Your task to perform on an android device: turn off notifications in google photos Image 0: 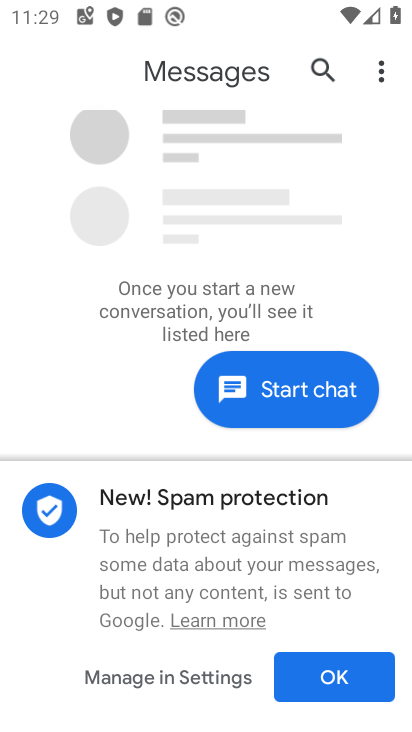
Step 0: press home button
Your task to perform on an android device: turn off notifications in google photos Image 1: 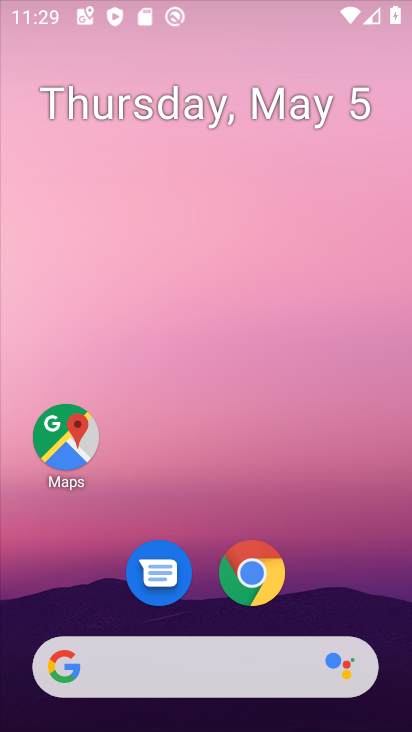
Step 1: drag from (261, 608) to (274, 289)
Your task to perform on an android device: turn off notifications in google photos Image 2: 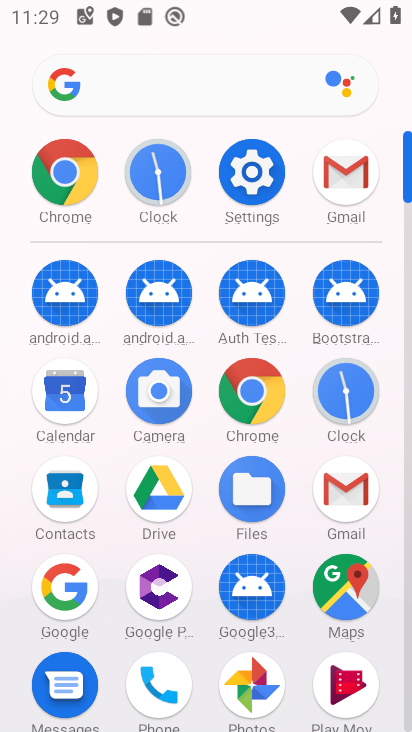
Step 2: click (253, 679)
Your task to perform on an android device: turn off notifications in google photos Image 3: 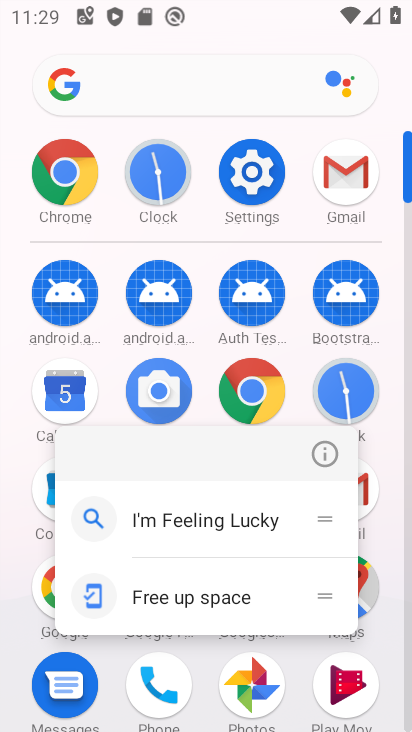
Step 3: click (261, 691)
Your task to perform on an android device: turn off notifications in google photos Image 4: 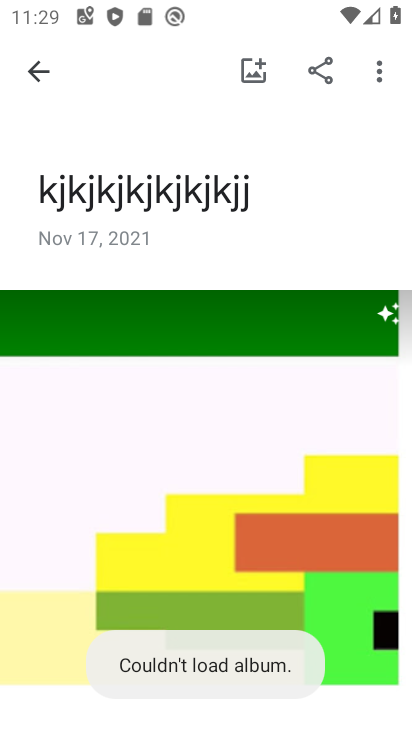
Step 4: click (42, 84)
Your task to perform on an android device: turn off notifications in google photos Image 5: 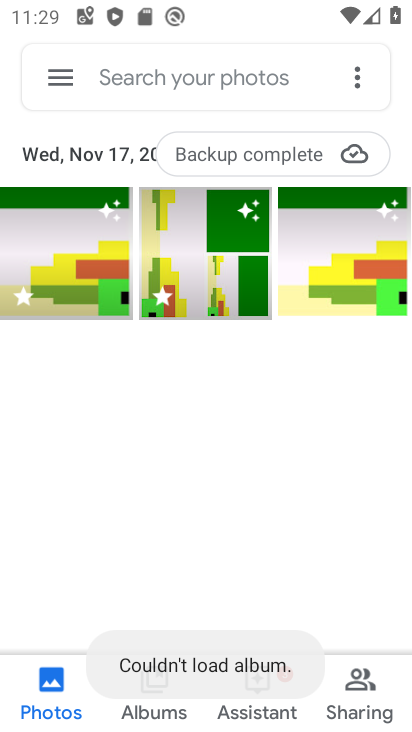
Step 5: click (67, 89)
Your task to perform on an android device: turn off notifications in google photos Image 6: 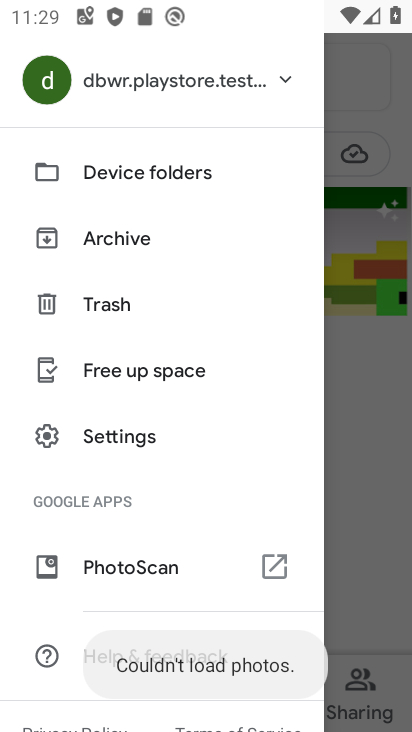
Step 6: click (154, 435)
Your task to perform on an android device: turn off notifications in google photos Image 7: 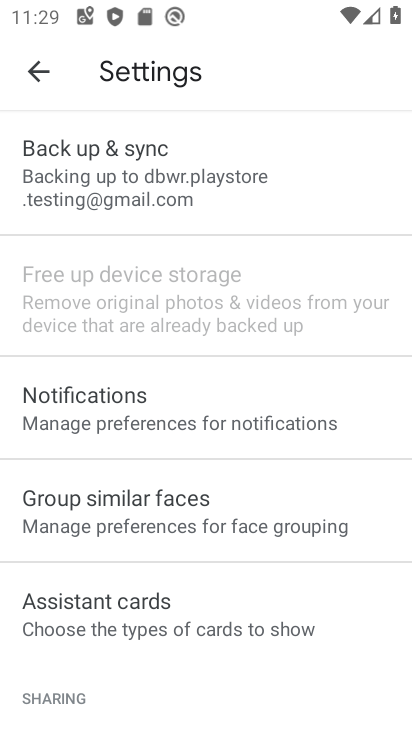
Step 7: click (154, 439)
Your task to perform on an android device: turn off notifications in google photos Image 8: 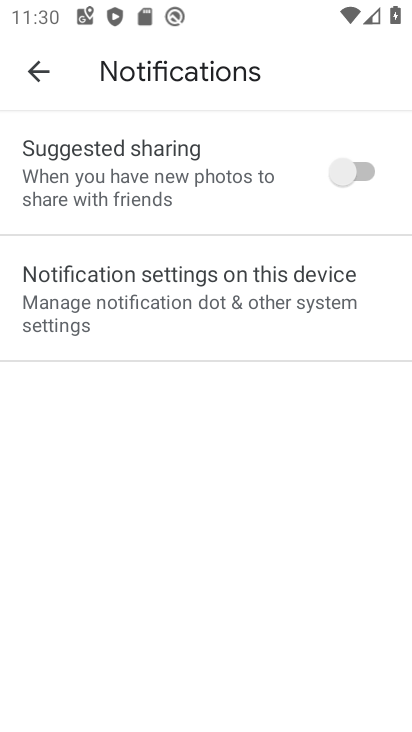
Step 8: click (157, 315)
Your task to perform on an android device: turn off notifications in google photos Image 9: 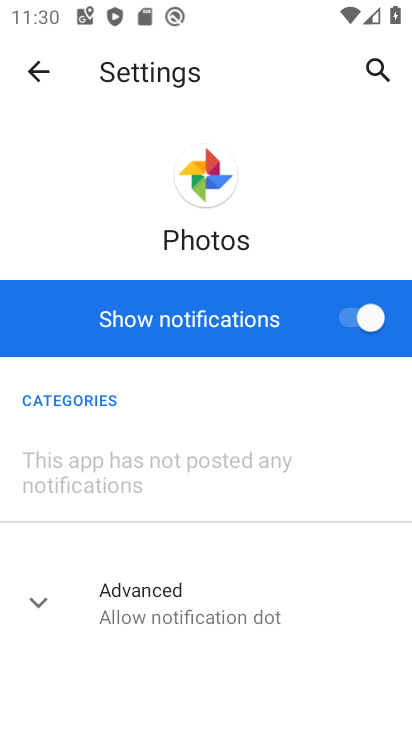
Step 9: click (351, 320)
Your task to perform on an android device: turn off notifications in google photos Image 10: 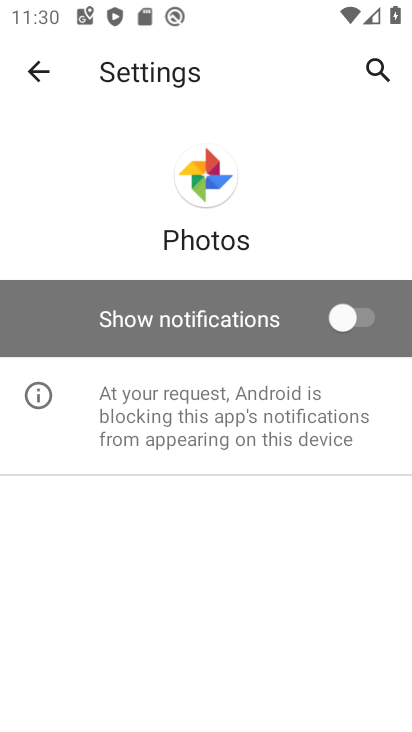
Step 10: task complete